Your task to perform on an android device: turn on the 12-hour format for clock Image 0: 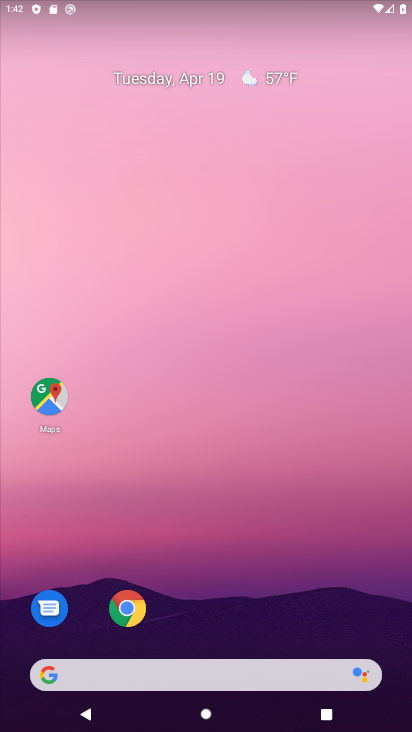
Step 0: drag from (196, 662) to (193, 276)
Your task to perform on an android device: turn on the 12-hour format for clock Image 1: 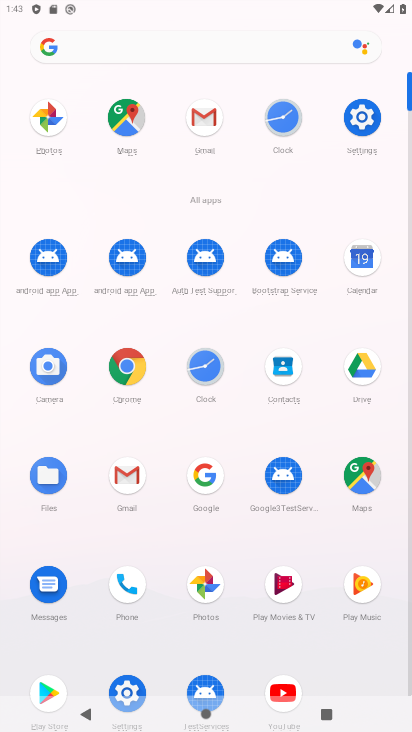
Step 1: click (272, 119)
Your task to perform on an android device: turn on the 12-hour format for clock Image 2: 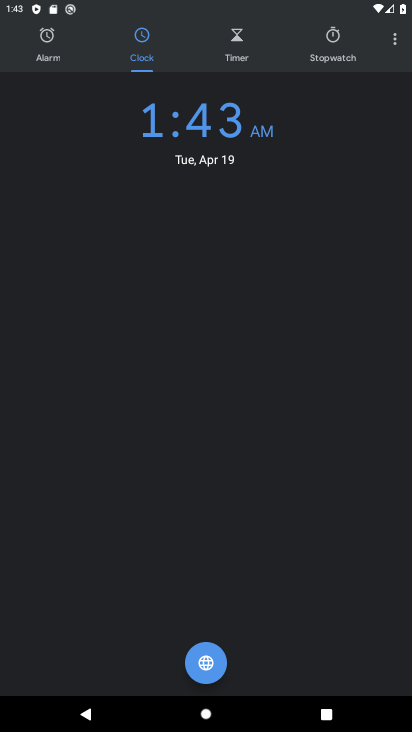
Step 2: click (397, 36)
Your task to perform on an android device: turn on the 12-hour format for clock Image 3: 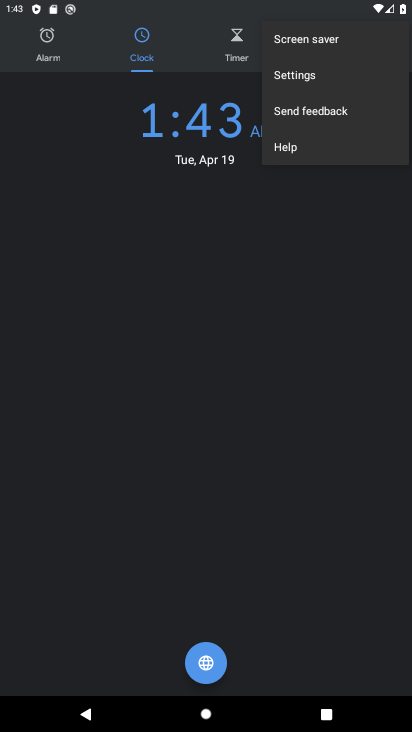
Step 3: click (324, 76)
Your task to perform on an android device: turn on the 12-hour format for clock Image 4: 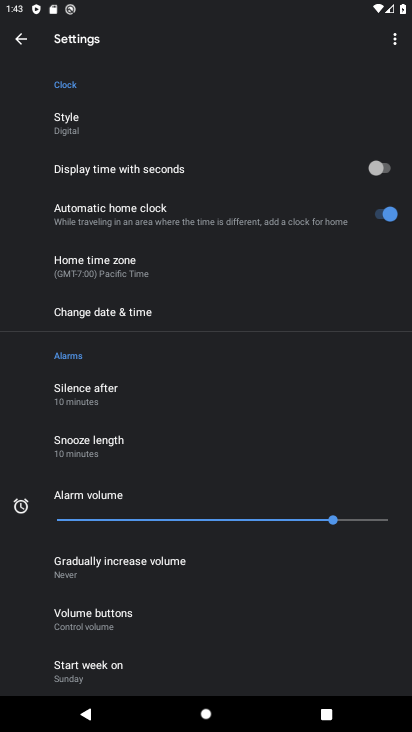
Step 4: click (105, 311)
Your task to perform on an android device: turn on the 12-hour format for clock Image 5: 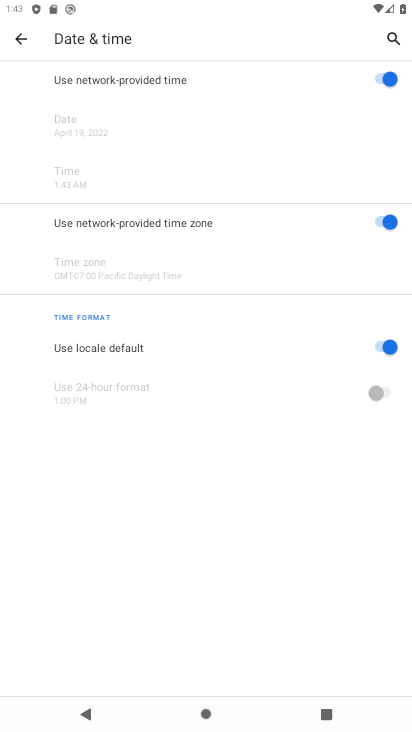
Step 5: task complete